Your task to perform on an android device: set an alarm Image 0: 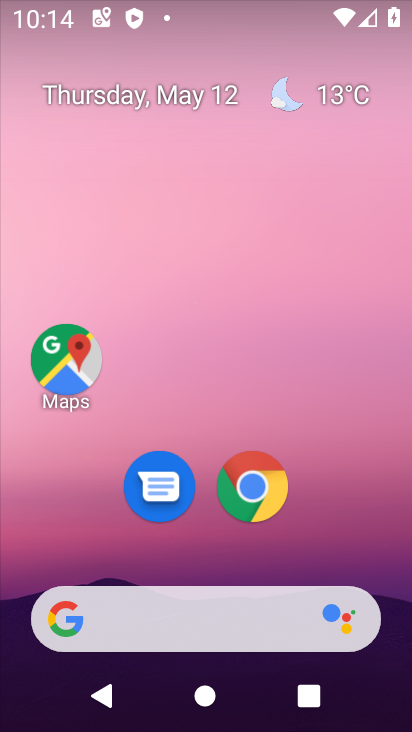
Step 0: drag from (351, 521) to (277, 181)
Your task to perform on an android device: set an alarm Image 1: 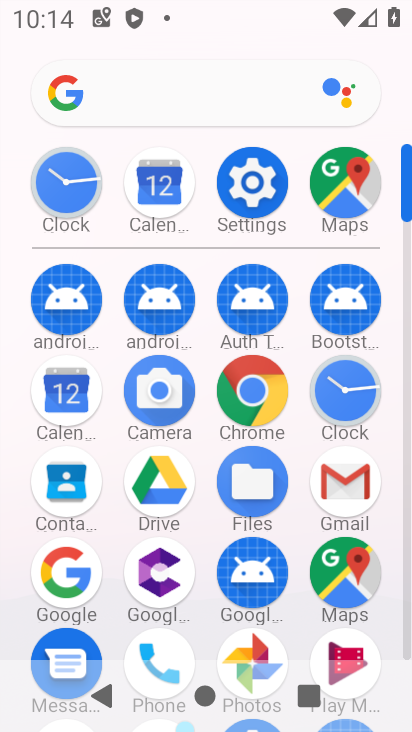
Step 1: click (319, 397)
Your task to perform on an android device: set an alarm Image 2: 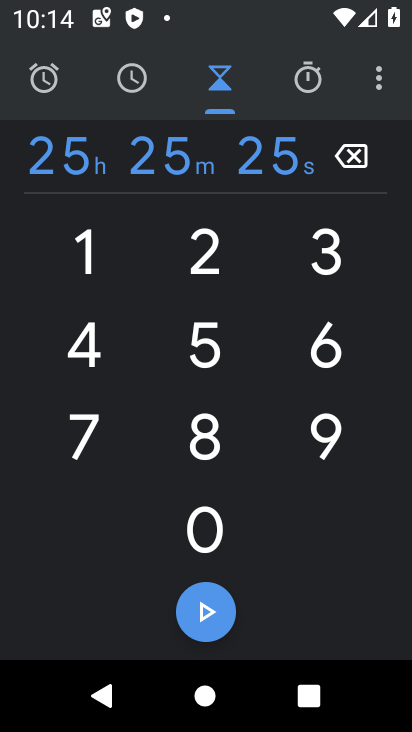
Step 2: click (44, 72)
Your task to perform on an android device: set an alarm Image 3: 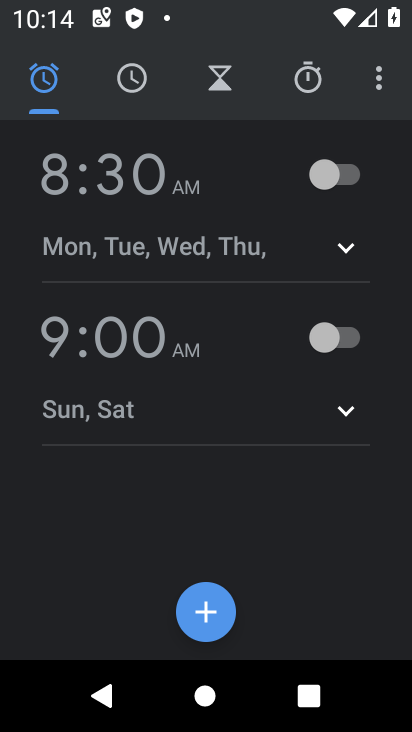
Step 3: click (336, 173)
Your task to perform on an android device: set an alarm Image 4: 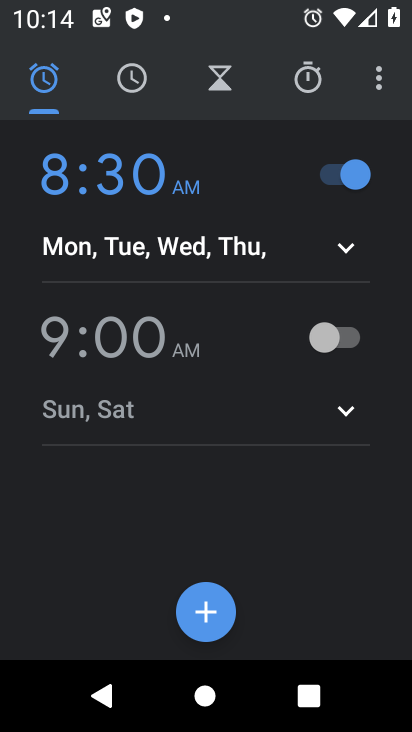
Step 4: task complete